Your task to perform on an android device: Search for sushi restaurants on Maps Image 0: 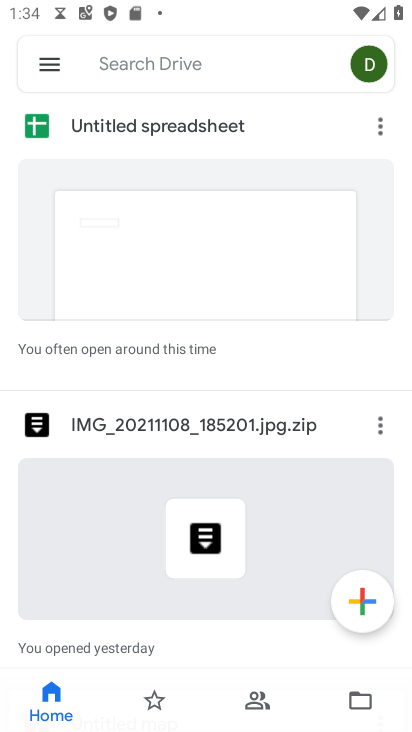
Step 0: press home button
Your task to perform on an android device: Search for sushi restaurants on Maps Image 1: 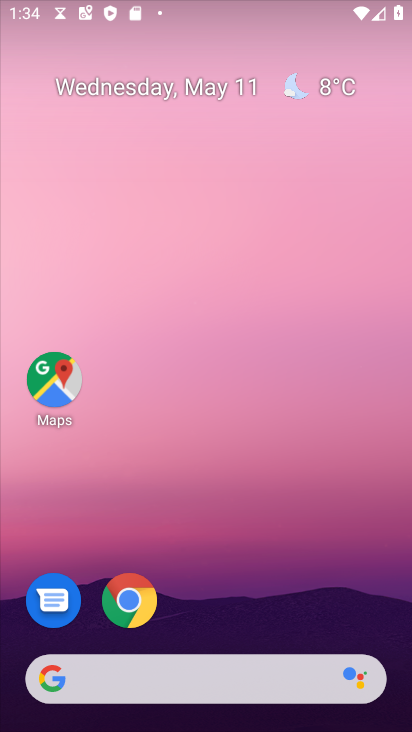
Step 1: click (60, 384)
Your task to perform on an android device: Search for sushi restaurants on Maps Image 2: 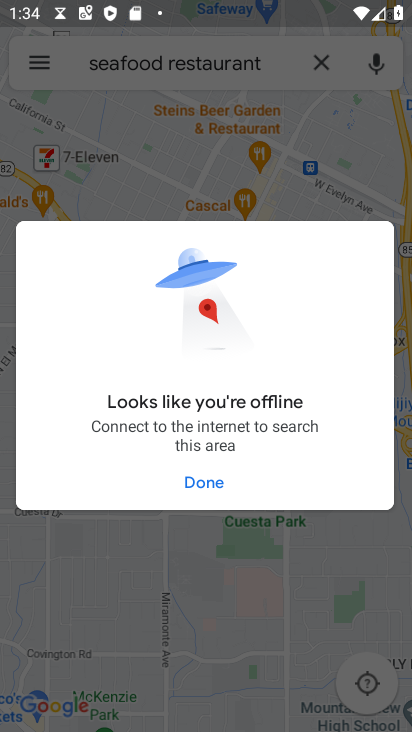
Step 2: click (209, 482)
Your task to perform on an android device: Search for sushi restaurants on Maps Image 3: 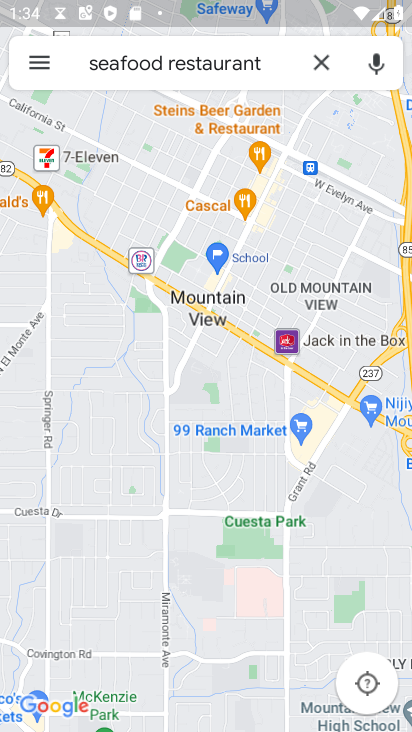
Step 3: click (323, 64)
Your task to perform on an android device: Search for sushi restaurants on Maps Image 4: 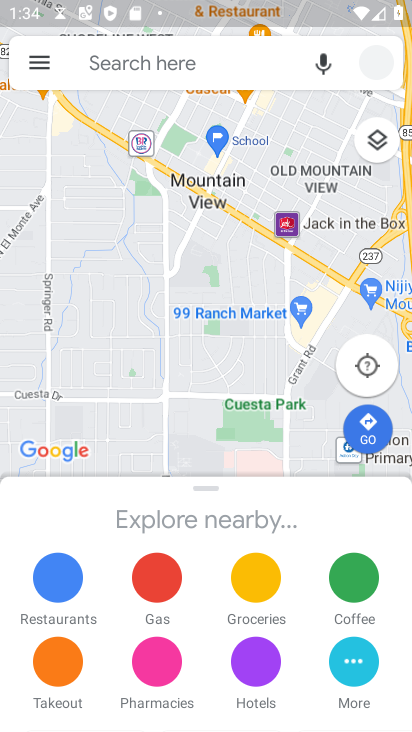
Step 4: click (145, 60)
Your task to perform on an android device: Search for sushi restaurants on Maps Image 5: 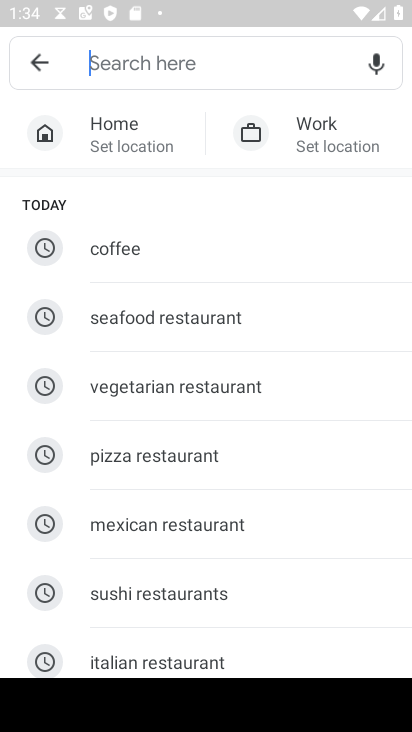
Step 5: click (150, 592)
Your task to perform on an android device: Search for sushi restaurants on Maps Image 6: 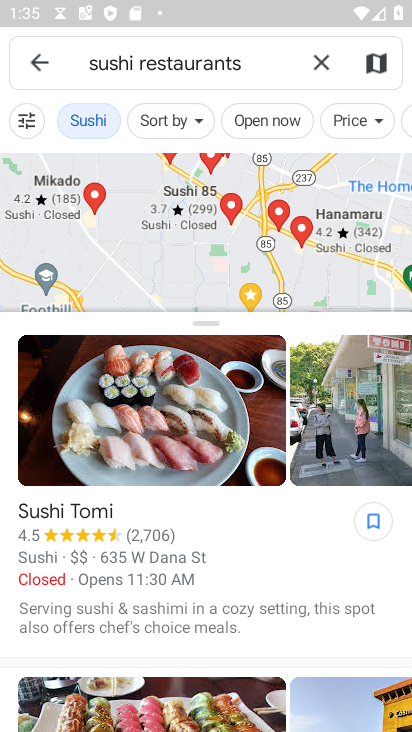
Step 6: task complete